Your task to perform on an android device: open chrome privacy settings Image 0: 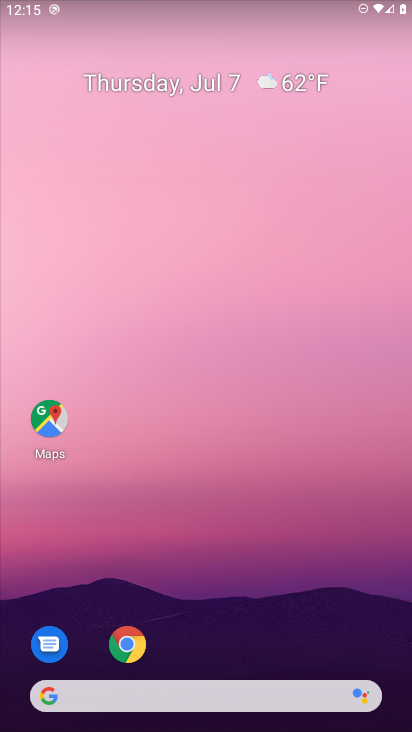
Step 0: click (131, 635)
Your task to perform on an android device: open chrome privacy settings Image 1: 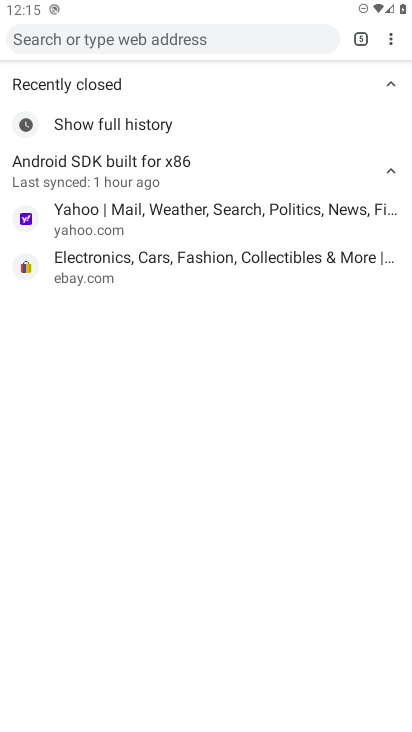
Step 1: click (387, 34)
Your task to perform on an android device: open chrome privacy settings Image 2: 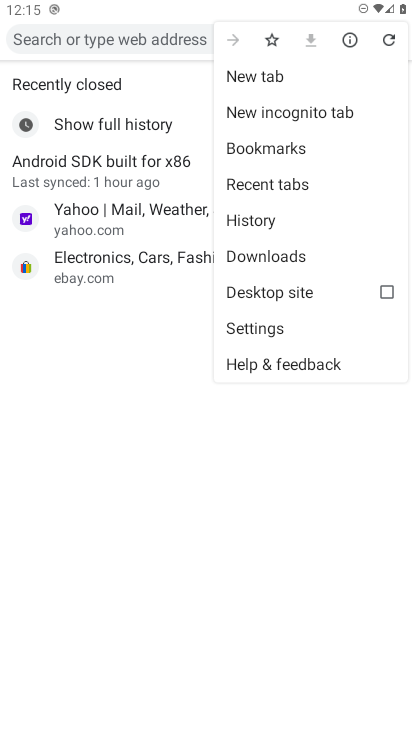
Step 2: click (264, 331)
Your task to perform on an android device: open chrome privacy settings Image 3: 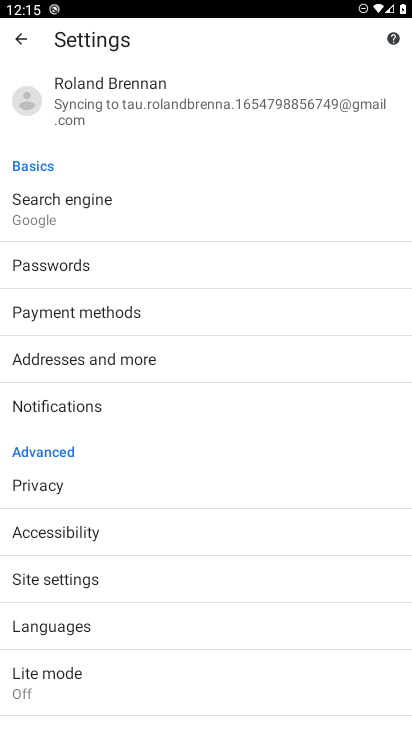
Step 3: click (31, 487)
Your task to perform on an android device: open chrome privacy settings Image 4: 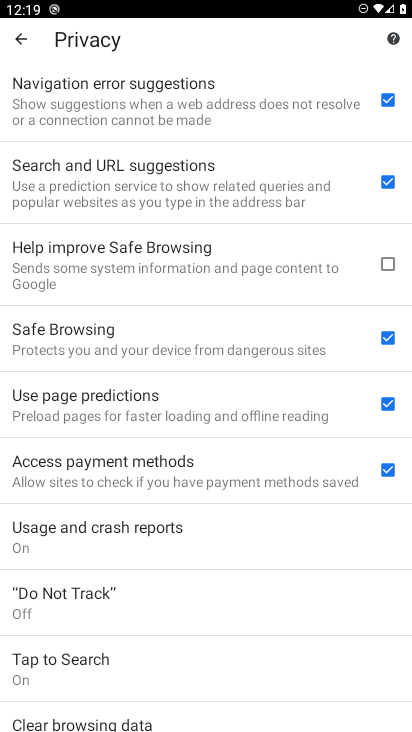
Step 4: task complete